Your task to perform on an android device: When is my next appointment? Image 0: 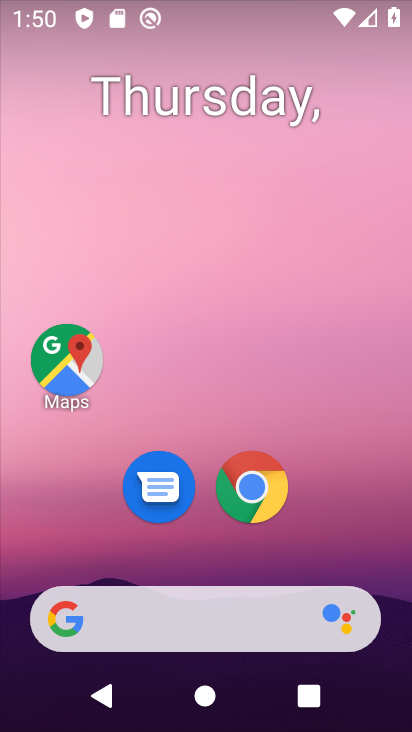
Step 0: drag from (324, 564) to (405, 30)
Your task to perform on an android device: When is my next appointment? Image 1: 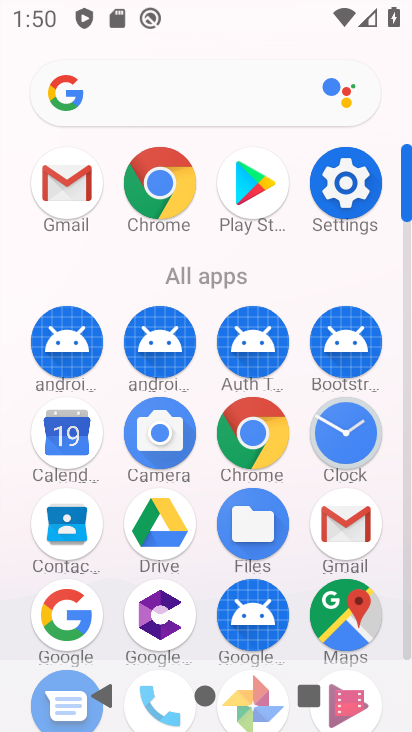
Step 1: click (53, 439)
Your task to perform on an android device: When is my next appointment? Image 2: 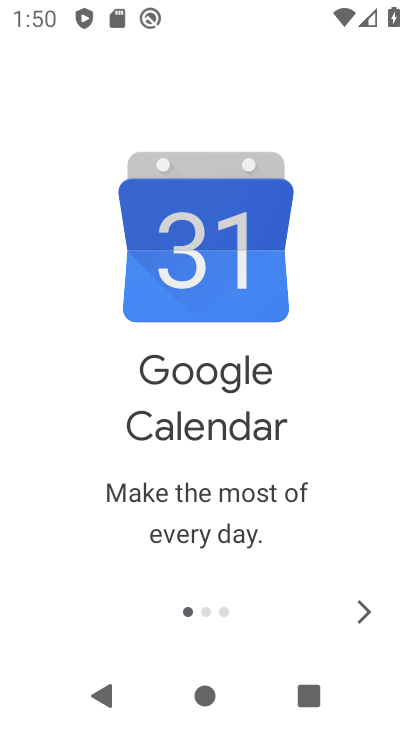
Step 2: click (357, 614)
Your task to perform on an android device: When is my next appointment? Image 3: 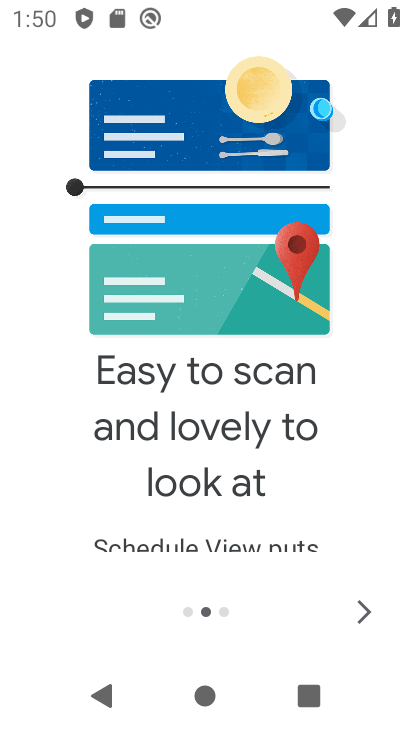
Step 3: click (364, 609)
Your task to perform on an android device: When is my next appointment? Image 4: 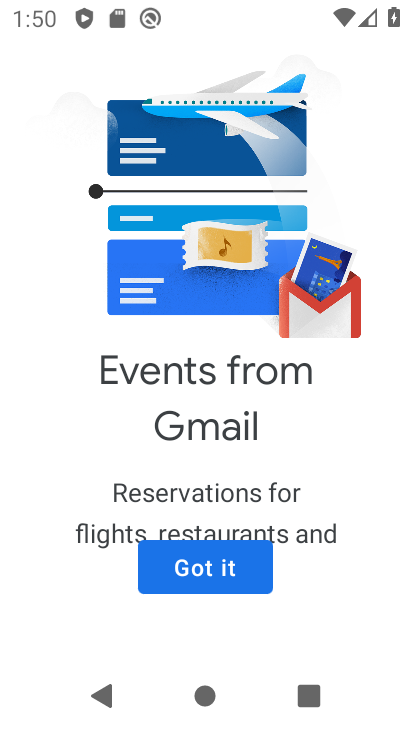
Step 4: click (235, 566)
Your task to perform on an android device: When is my next appointment? Image 5: 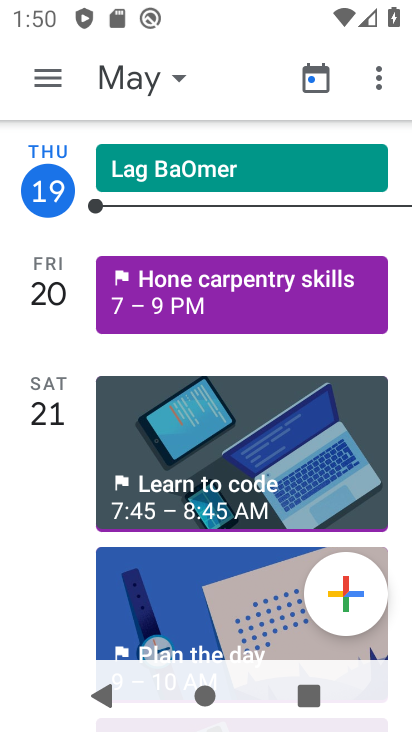
Step 5: click (143, 103)
Your task to perform on an android device: When is my next appointment? Image 6: 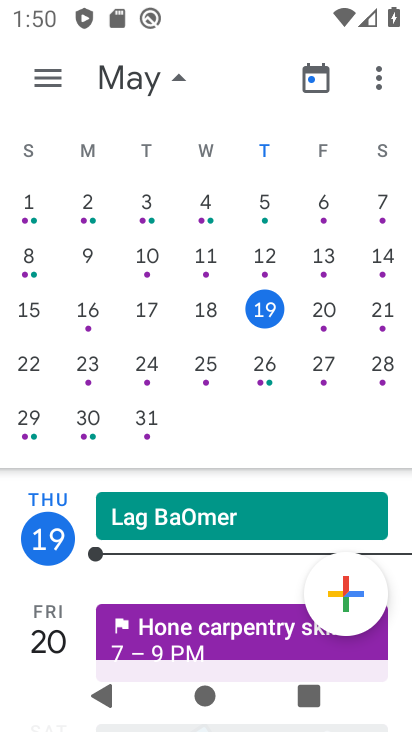
Step 6: click (274, 307)
Your task to perform on an android device: When is my next appointment? Image 7: 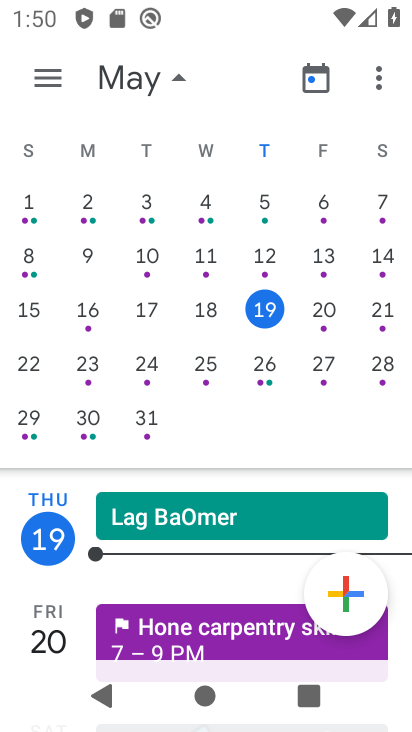
Step 7: task complete